Your task to perform on an android device: add a contact Image 0: 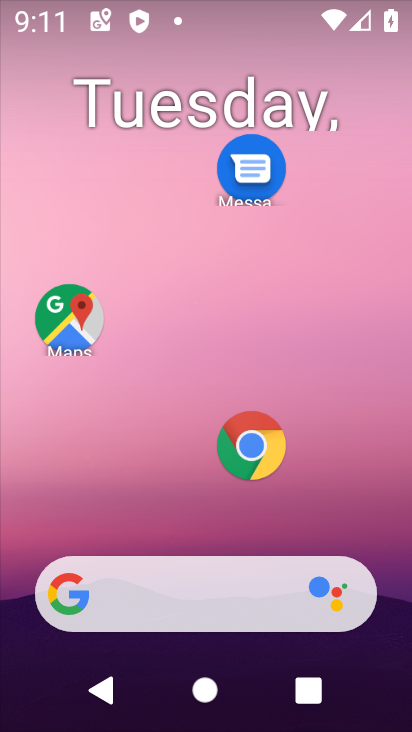
Step 0: drag from (186, 476) to (190, 37)
Your task to perform on an android device: add a contact Image 1: 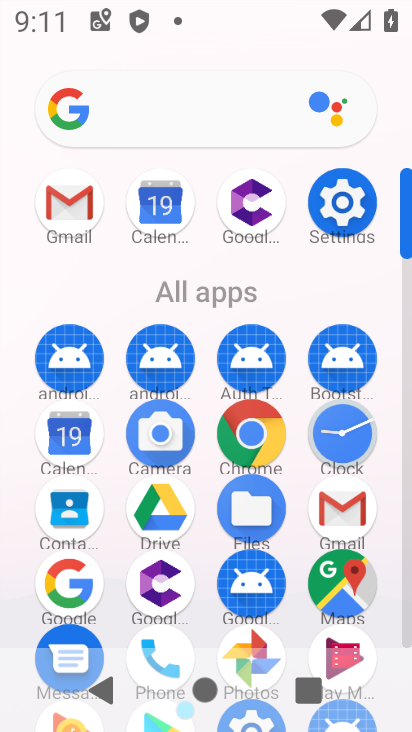
Step 1: click (66, 497)
Your task to perform on an android device: add a contact Image 2: 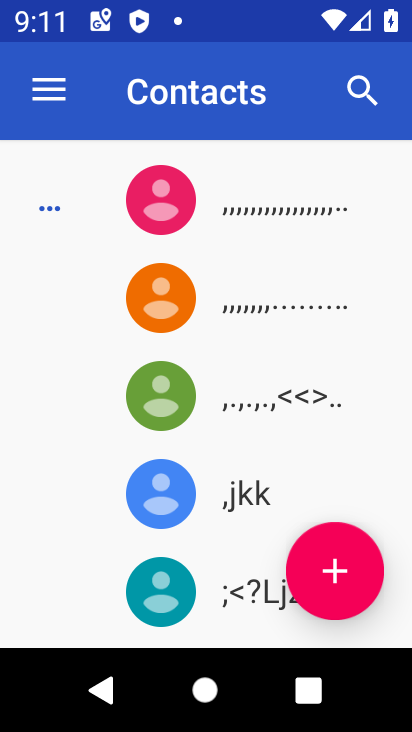
Step 2: click (316, 588)
Your task to perform on an android device: add a contact Image 3: 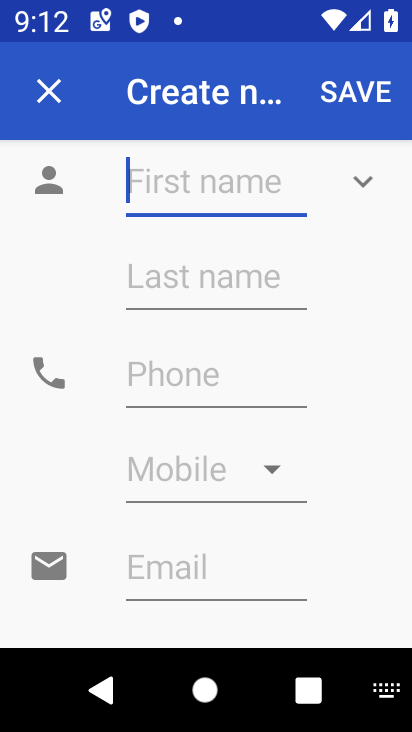
Step 3: click (183, 188)
Your task to perform on an android device: add a contact Image 4: 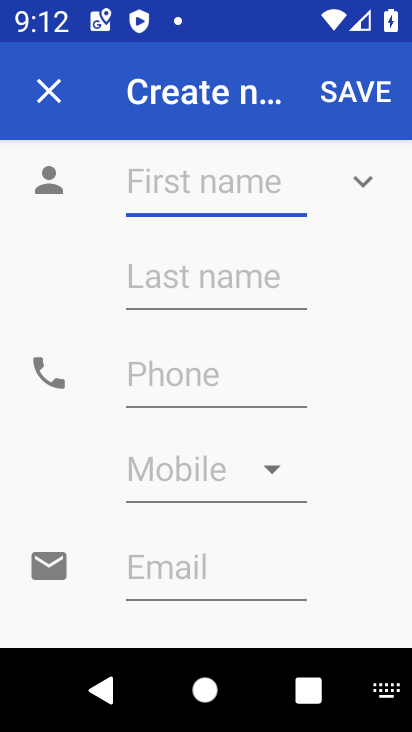
Step 4: type "vvvcf"
Your task to perform on an android device: add a contact Image 5: 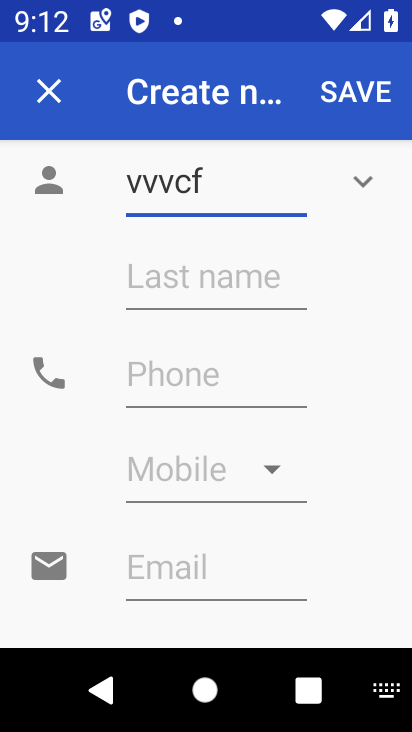
Step 5: click (186, 371)
Your task to perform on an android device: add a contact Image 6: 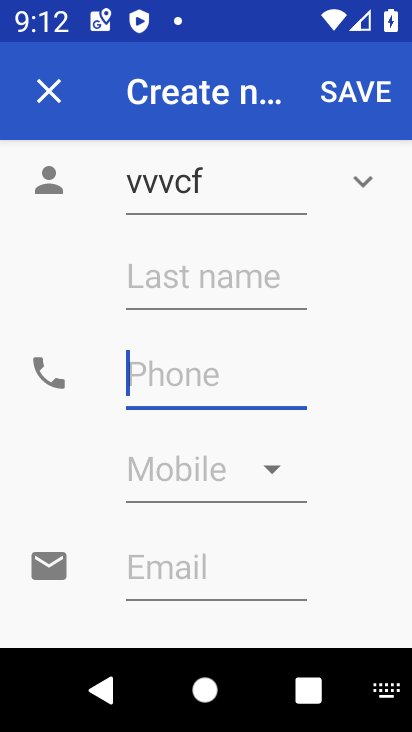
Step 6: type "65644"
Your task to perform on an android device: add a contact Image 7: 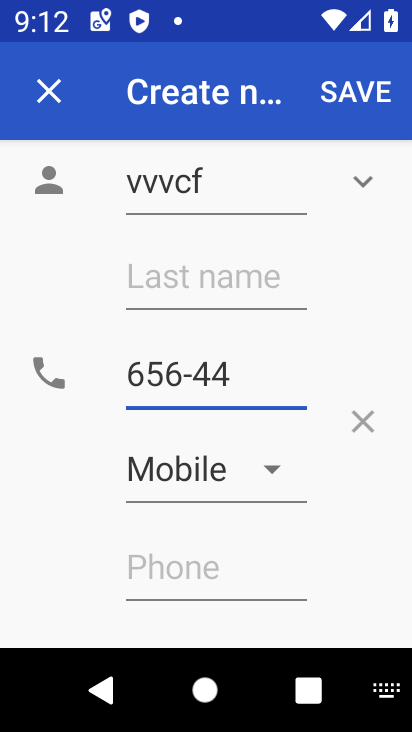
Step 7: click (375, 95)
Your task to perform on an android device: add a contact Image 8: 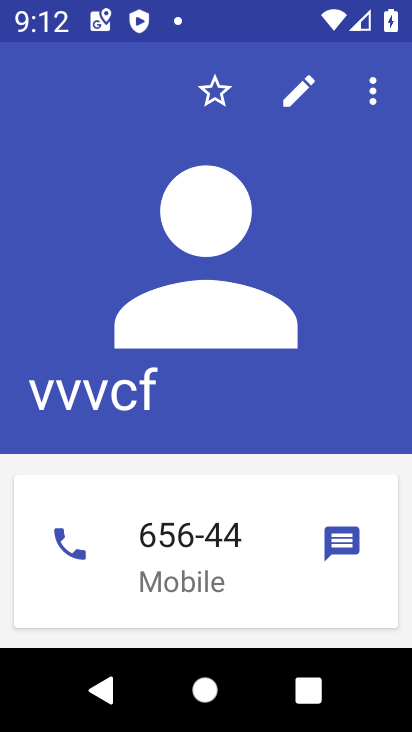
Step 8: task complete